Your task to perform on an android device: read, delete, or share a saved page in the chrome app Image 0: 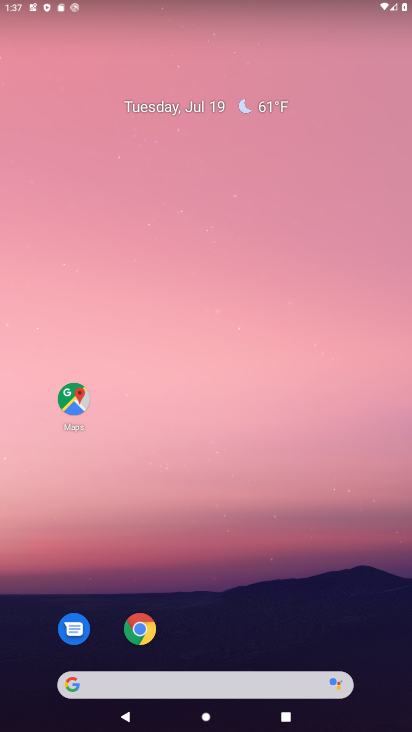
Step 0: click (151, 634)
Your task to perform on an android device: read, delete, or share a saved page in the chrome app Image 1: 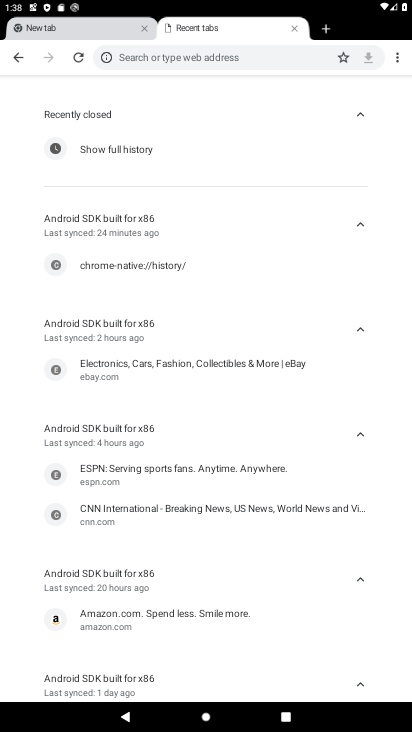
Step 1: drag from (404, 56) to (317, 211)
Your task to perform on an android device: read, delete, or share a saved page in the chrome app Image 2: 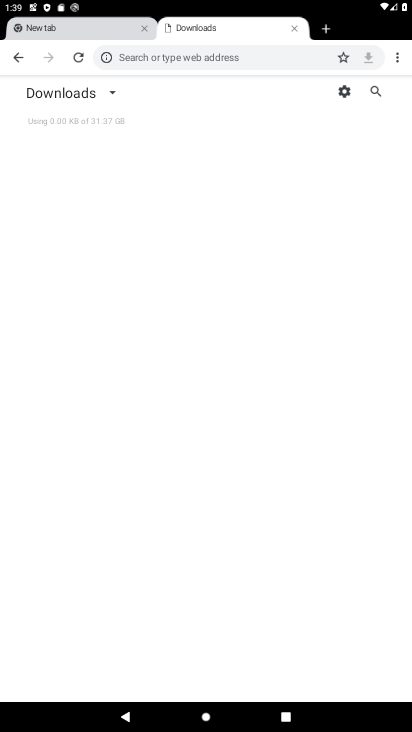
Step 2: click (110, 92)
Your task to perform on an android device: read, delete, or share a saved page in the chrome app Image 3: 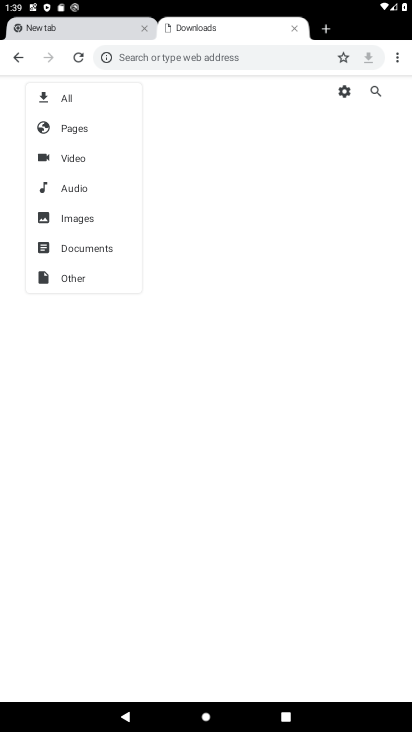
Step 3: click (73, 126)
Your task to perform on an android device: read, delete, or share a saved page in the chrome app Image 4: 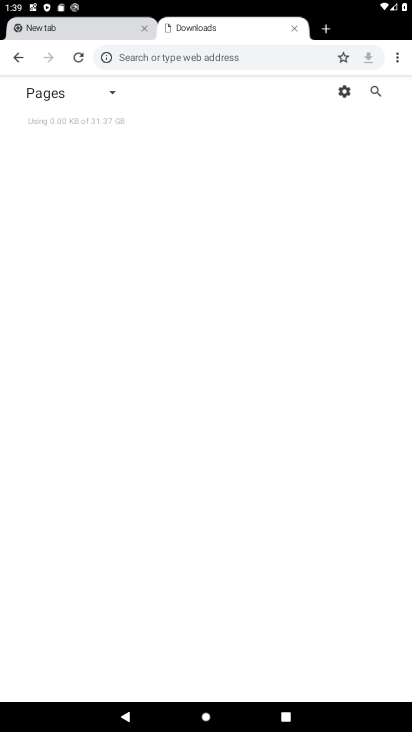
Step 4: task complete